Your task to perform on an android device: Empty the shopping cart on walmart. Image 0: 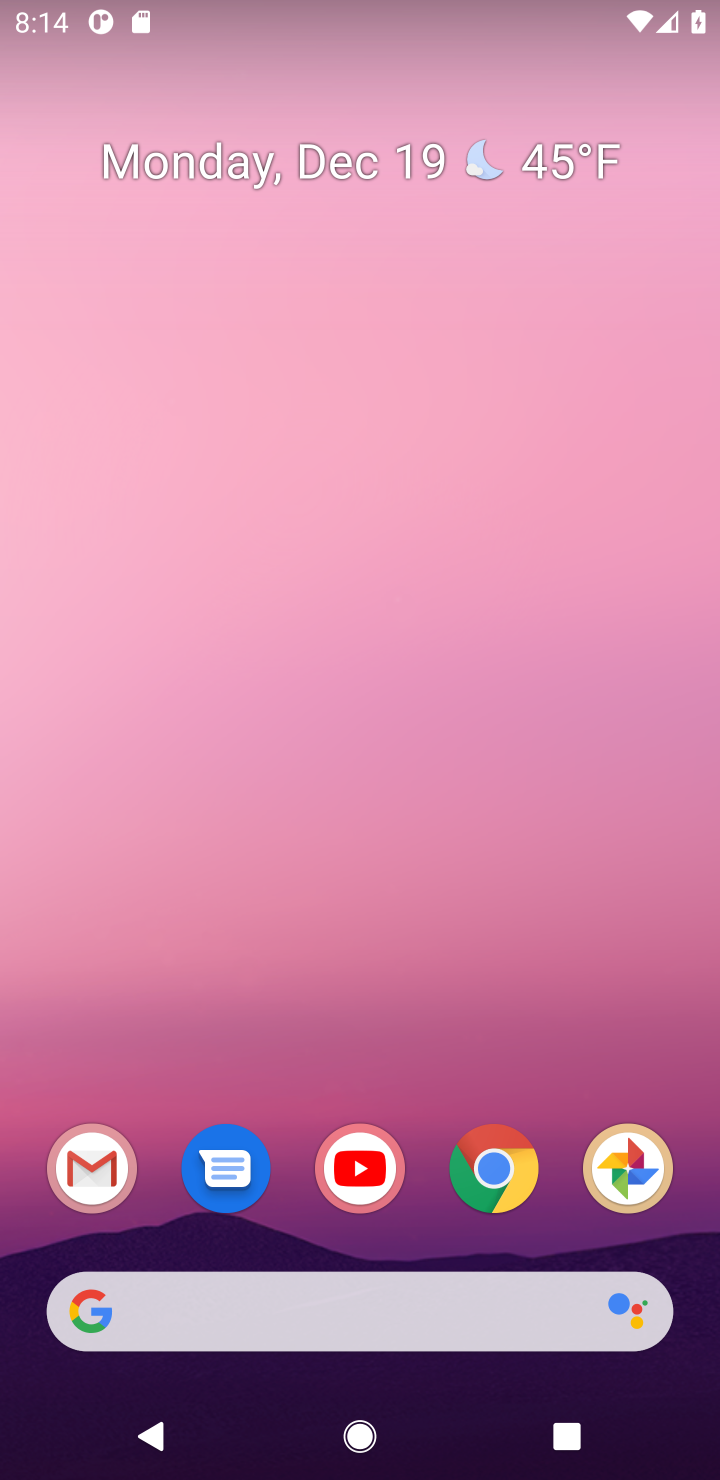
Step 0: click (500, 1179)
Your task to perform on an android device: Empty the shopping cart on walmart. Image 1: 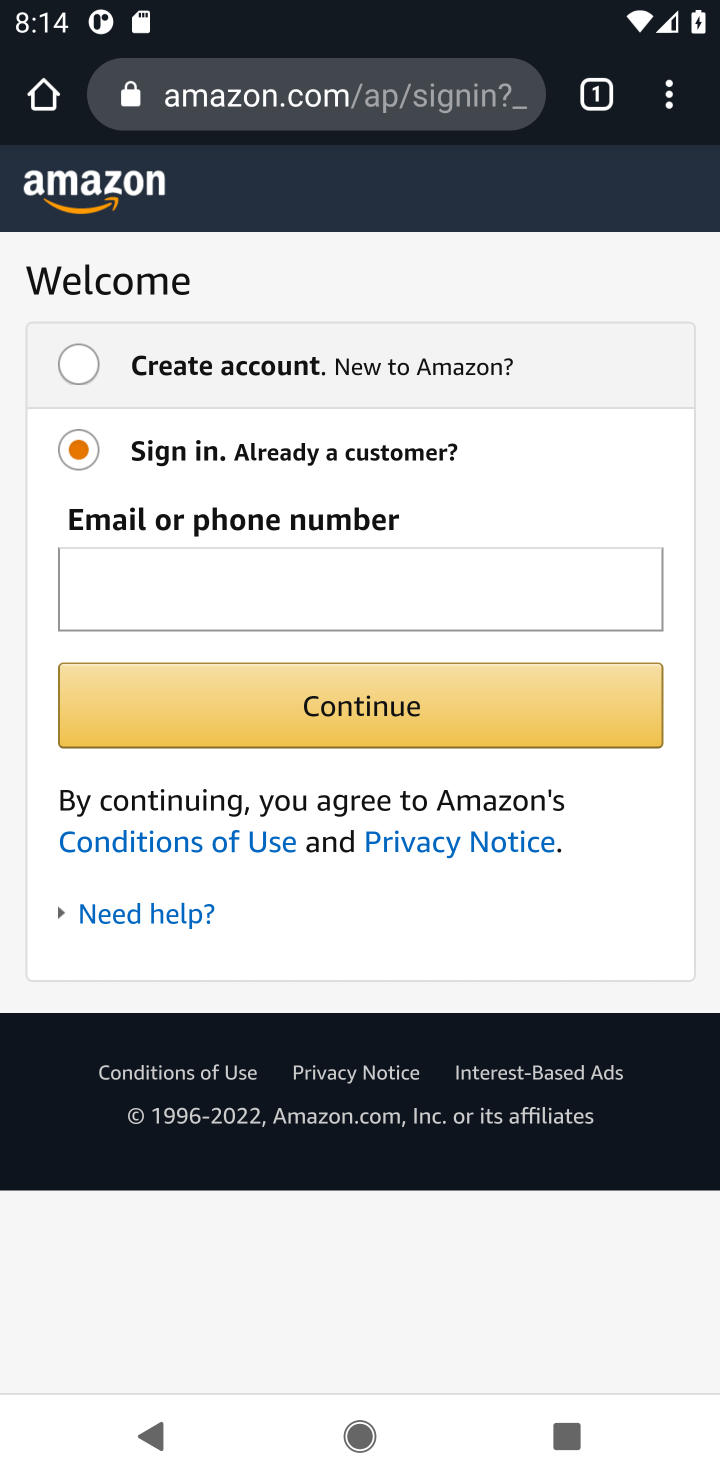
Step 1: click (309, 98)
Your task to perform on an android device: Empty the shopping cart on walmart. Image 2: 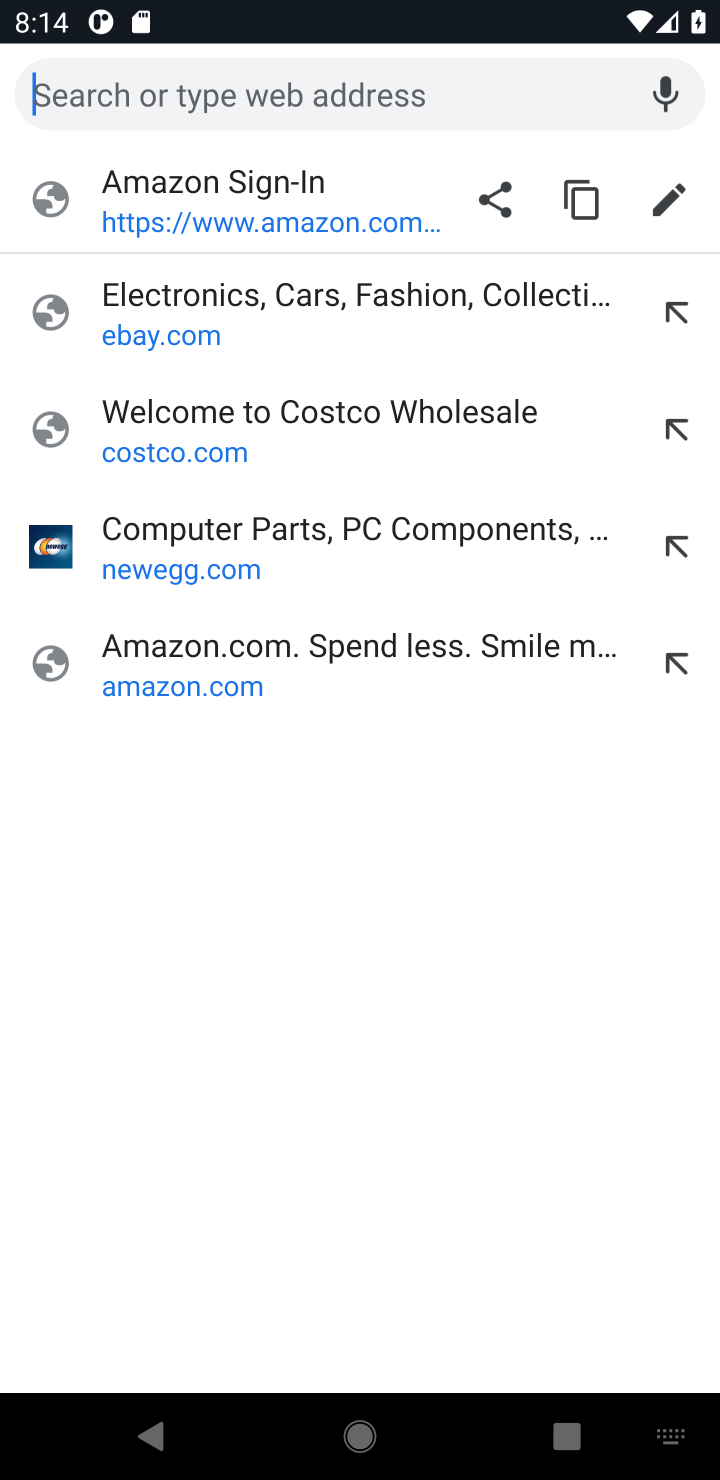
Step 2: type "walmart.com"
Your task to perform on an android device: Empty the shopping cart on walmart. Image 3: 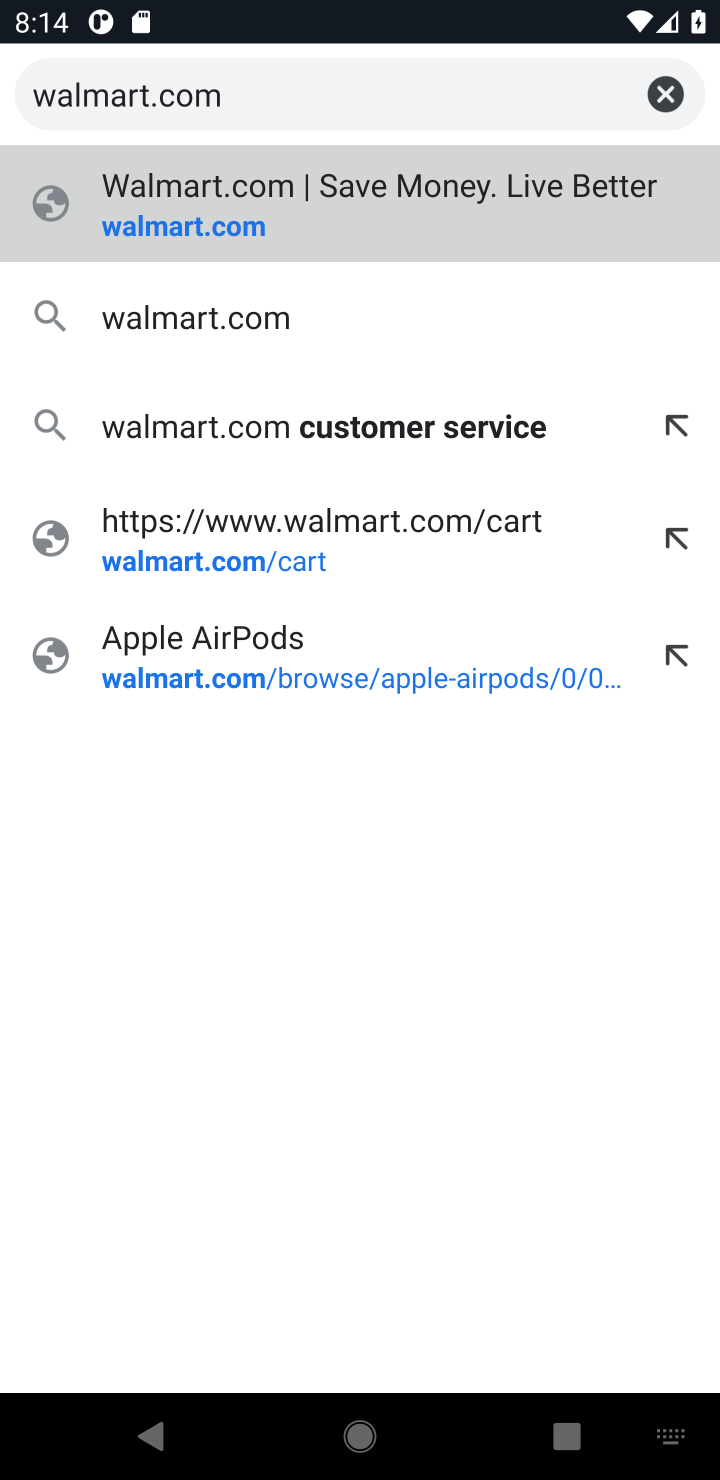
Step 3: click (181, 232)
Your task to perform on an android device: Empty the shopping cart on walmart. Image 4: 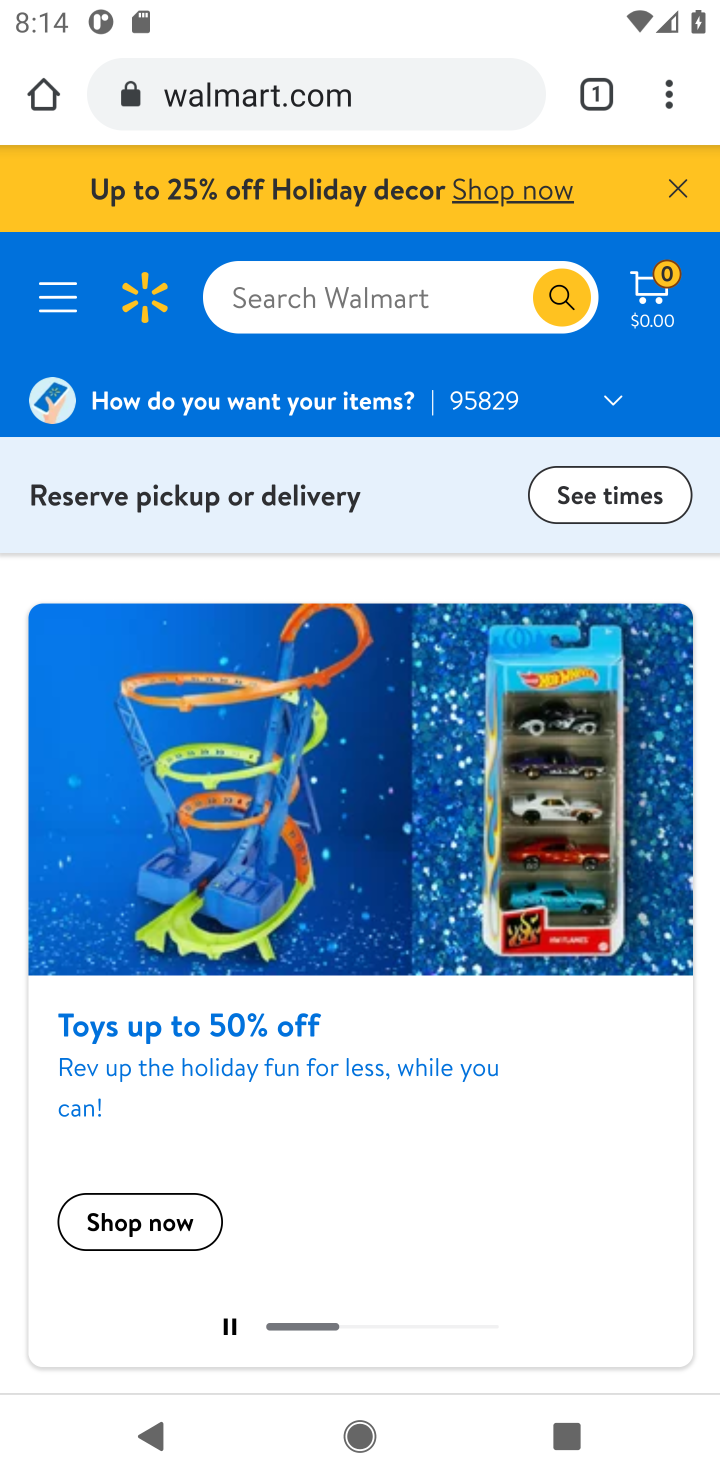
Step 4: click (665, 301)
Your task to perform on an android device: Empty the shopping cart on walmart. Image 5: 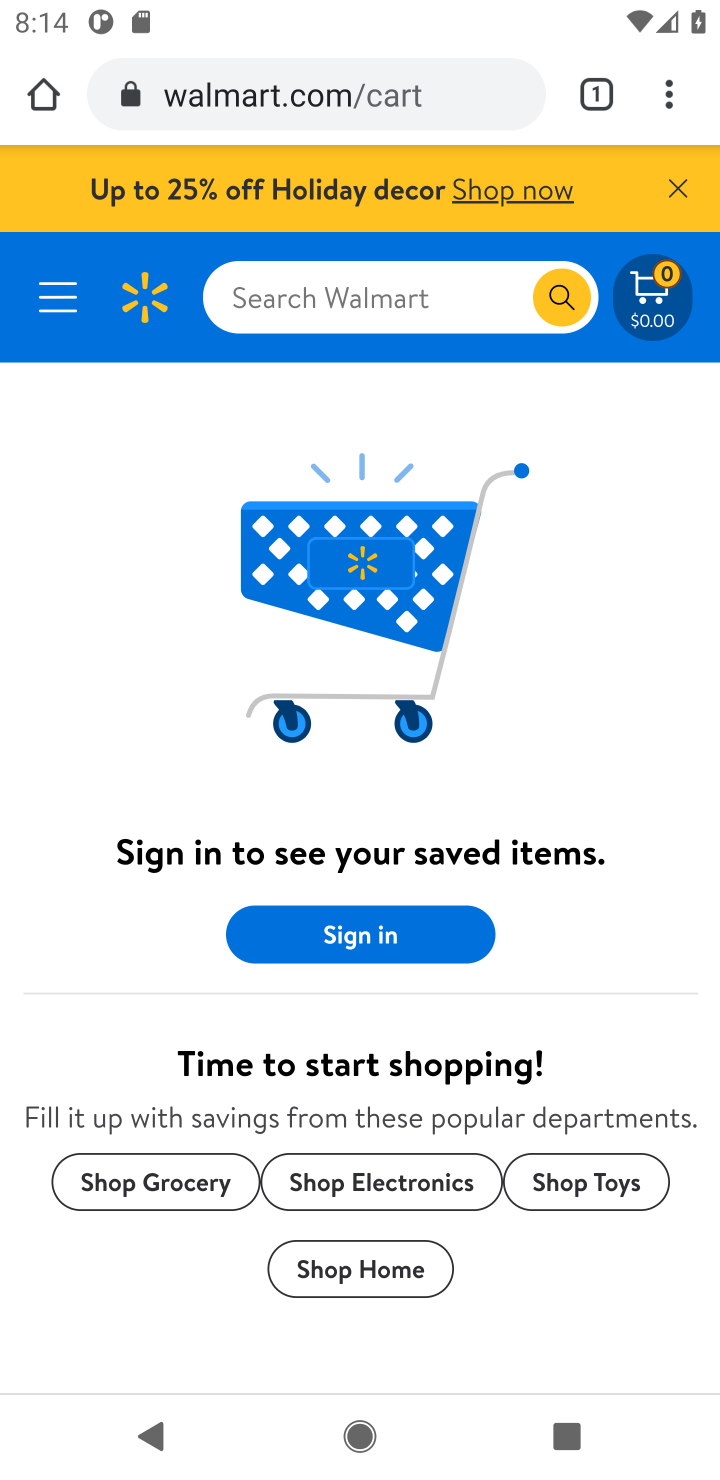
Step 5: task complete